Your task to perform on an android device: add a contact Image 0: 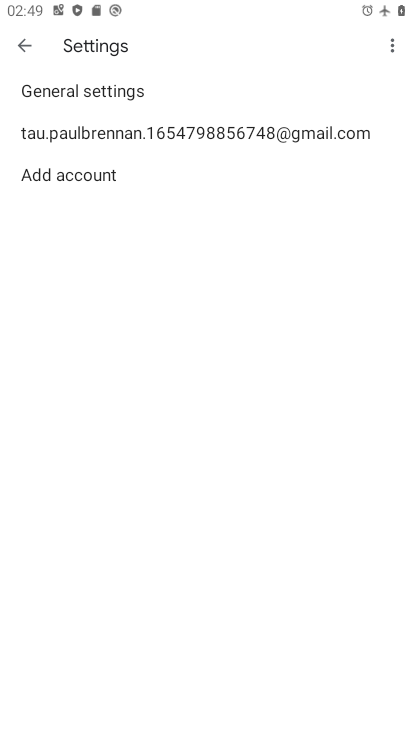
Step 0: press home button
Your task to perform on an android device: add a contact Image 1: 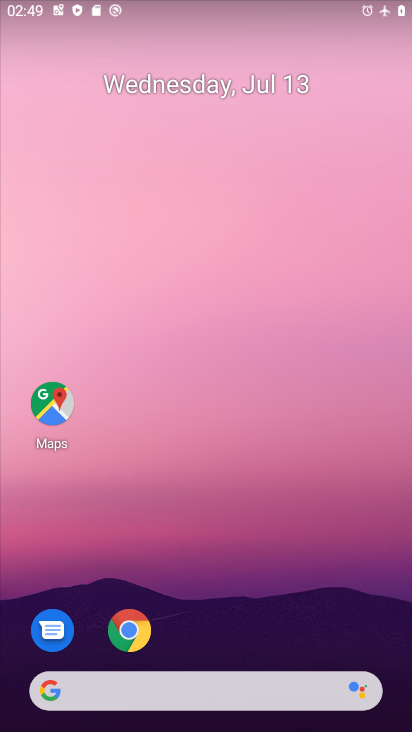
Step 1: drag from (191, 653) to (177, 328)
Your task to perform on an android device: add a contact Image 2: 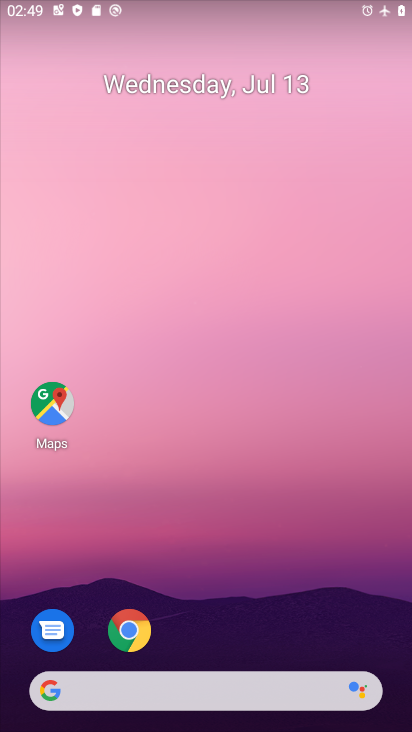
Step 2: drag from (216, 637) to (228, 136)
Your task to perform on an android device: add a contact Image 3: 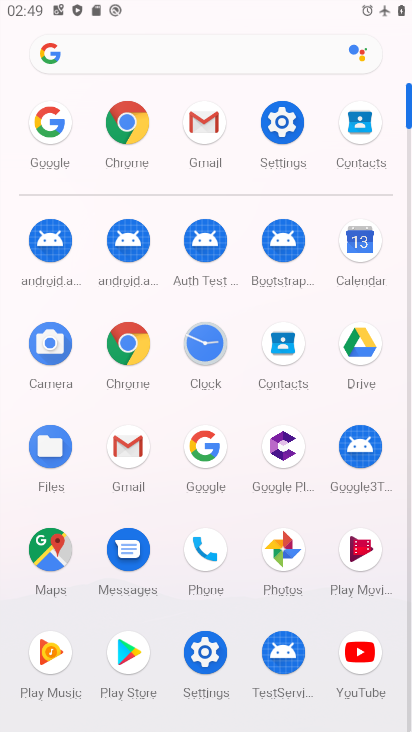
Step 3: click (272, 364)
Your task to perform on an android device: add a contact Image 4: 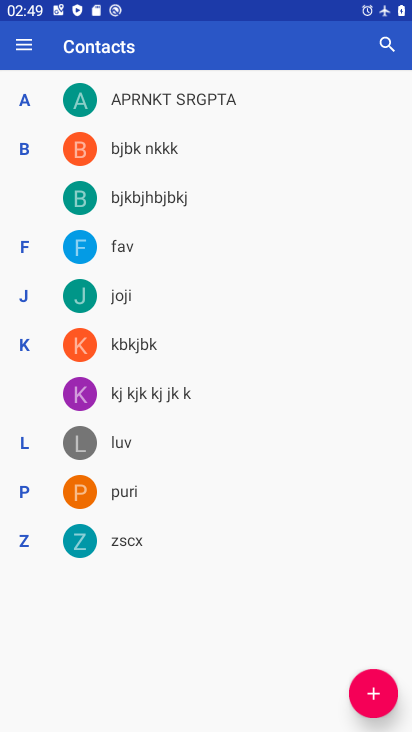
Step 4: click (361, 692)
Your task to perform on an android device: add a contact Image 5: 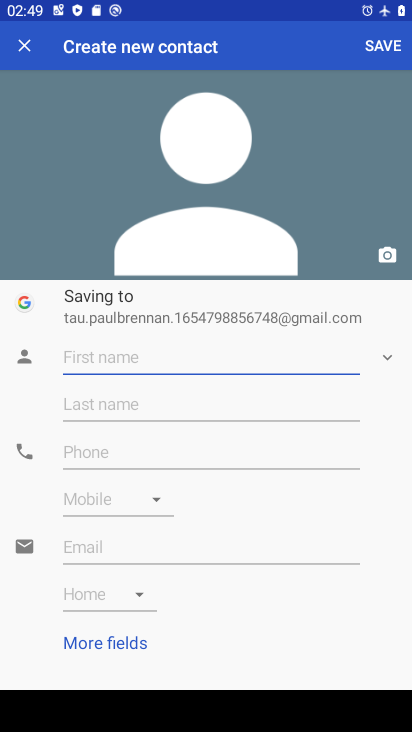
Step 5: type "ubjbjkbkj"
Your task to perform on an android device: add a contact Image 6: 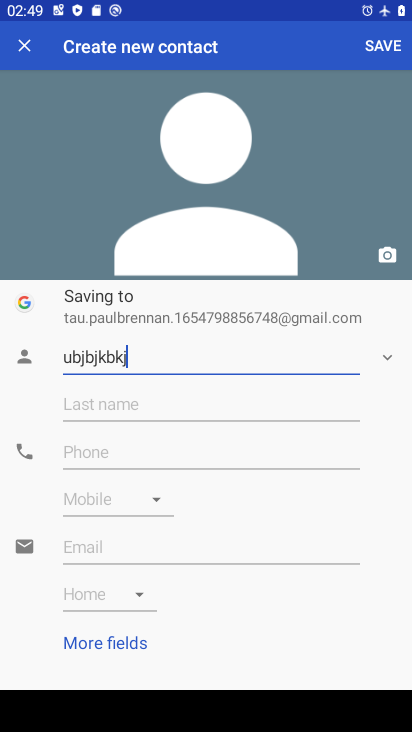
Step 6: click (278, 459)
Your task to perform on an android device: add a contact Image 7: 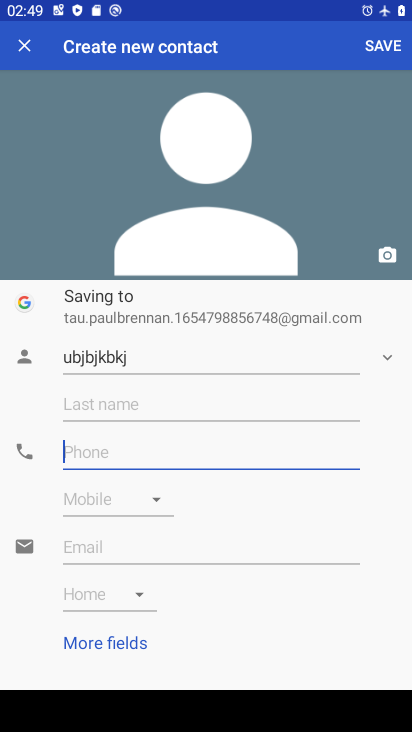
Step 7: type "7876786889"
Your task to perform on an android device: add a contact Image 8: 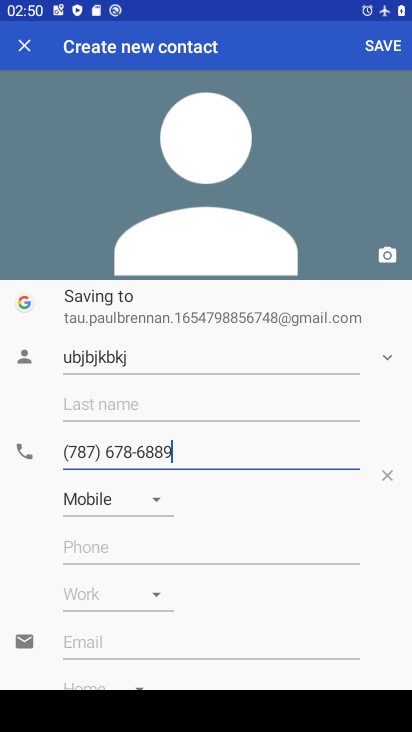
Step 8: click (384, 50)
Your task to perform on an android device: add a contact Image 9: 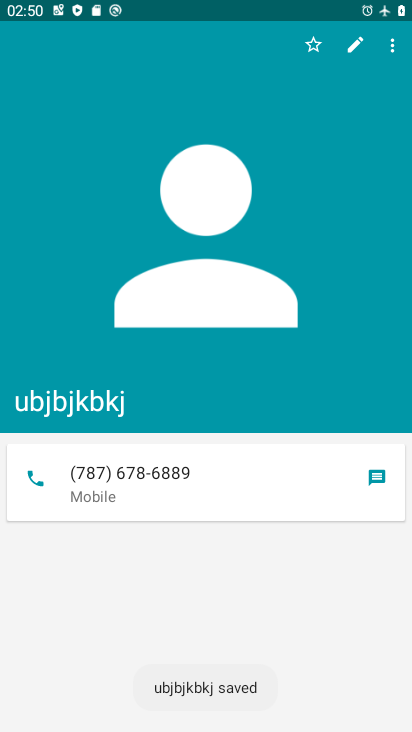
Step 9: task complete